Your task to perform on an android device: toggle improve location accuracy Image 0: 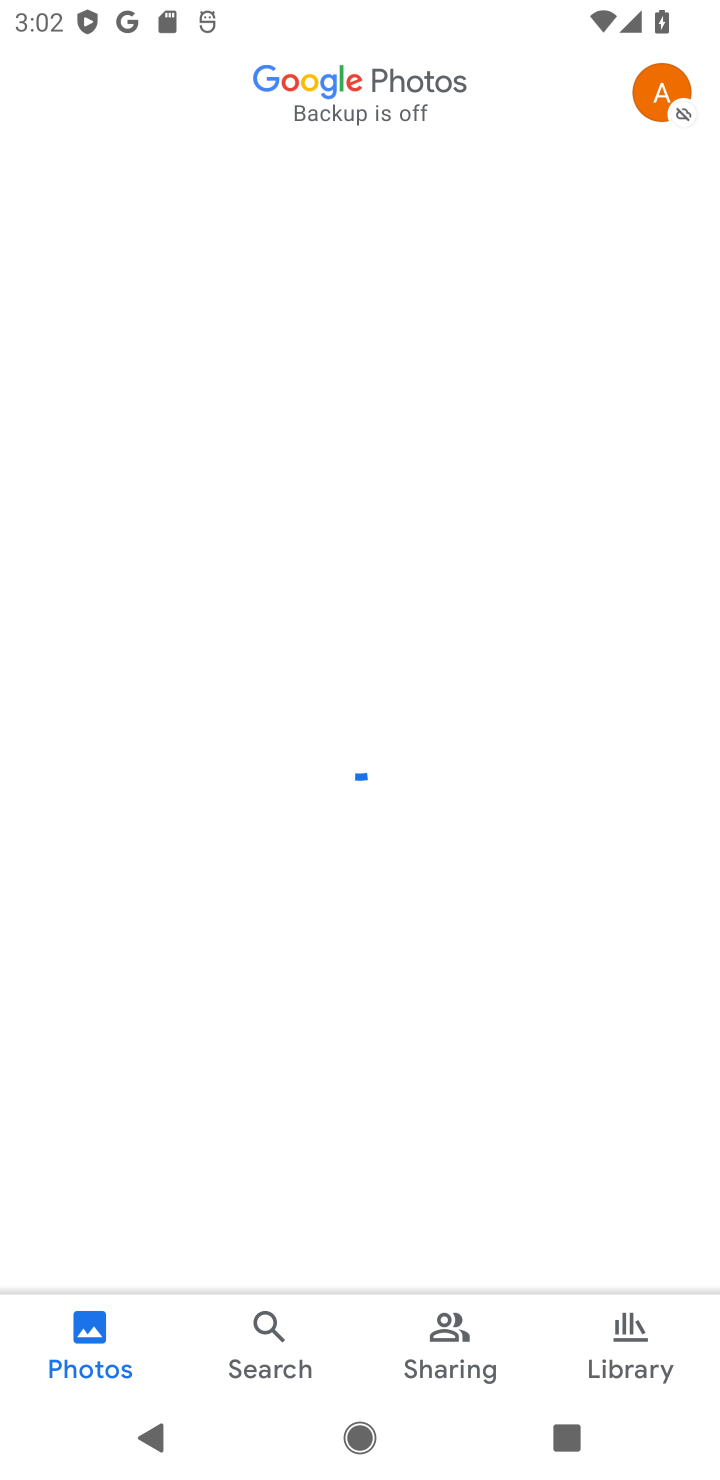
Step 0: press home button
Your task to perform on an android device: toggle improve location accuracy Image 1: 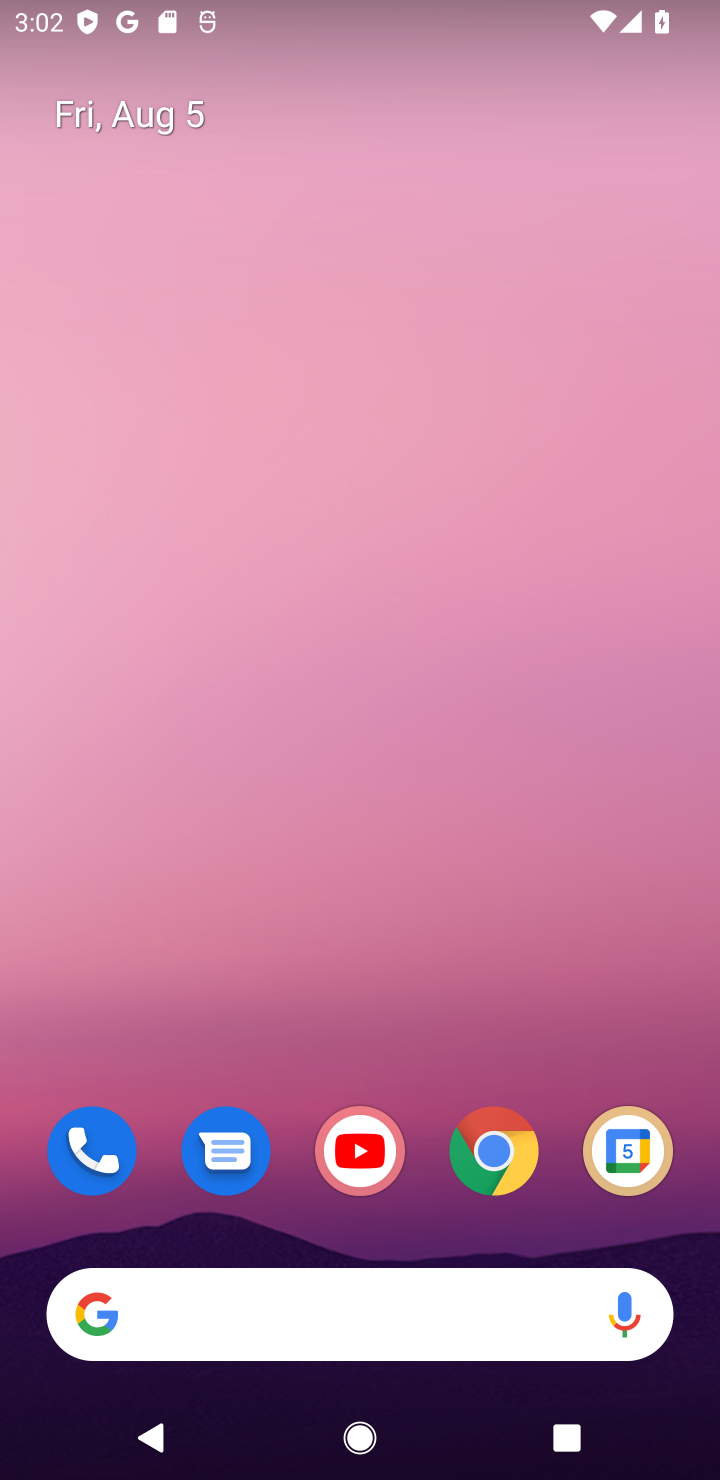
Step 1: drag from (424, 1072) to (350, 273)
Your task to perform on an android device: toggle improve location accuracy Image 2: 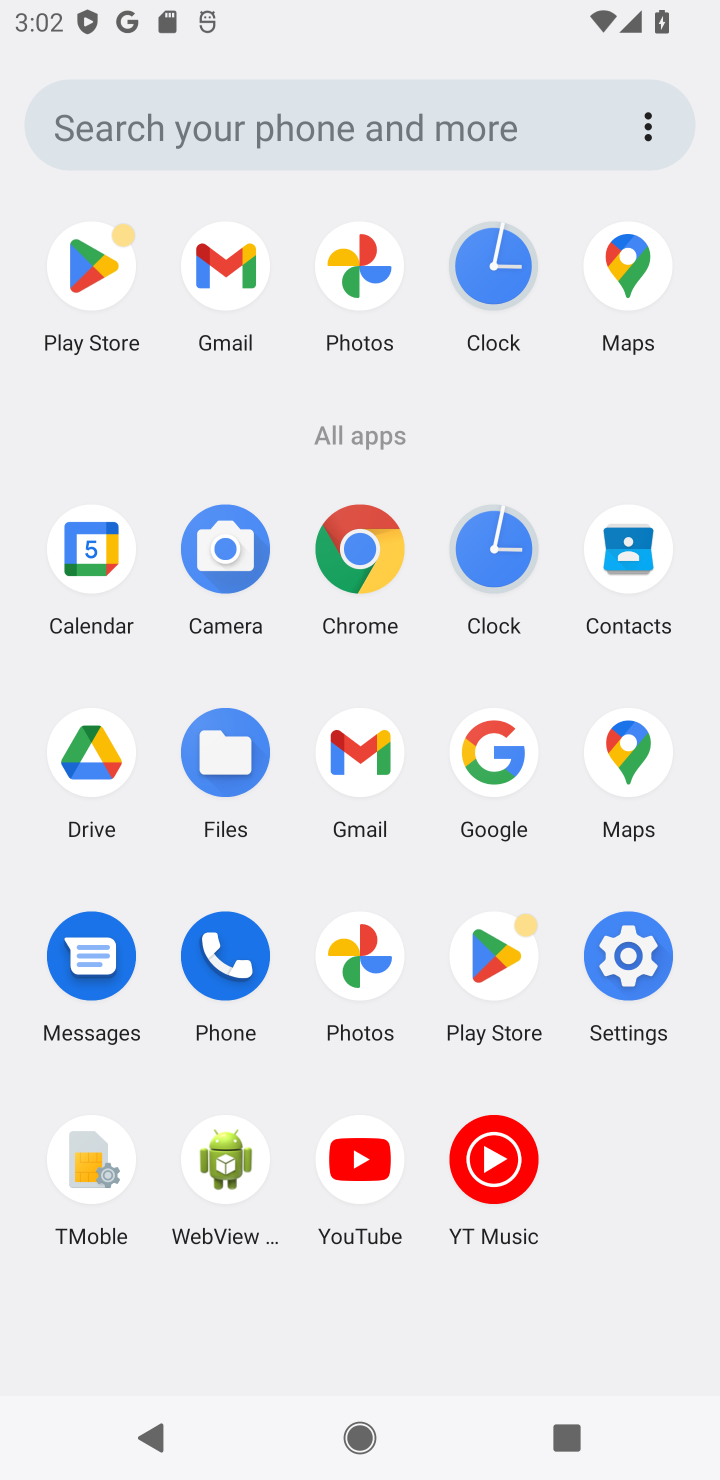
Step 2: click (638, 971)
Your task to perform on an android device: toggle improve location accuracy Image 3: 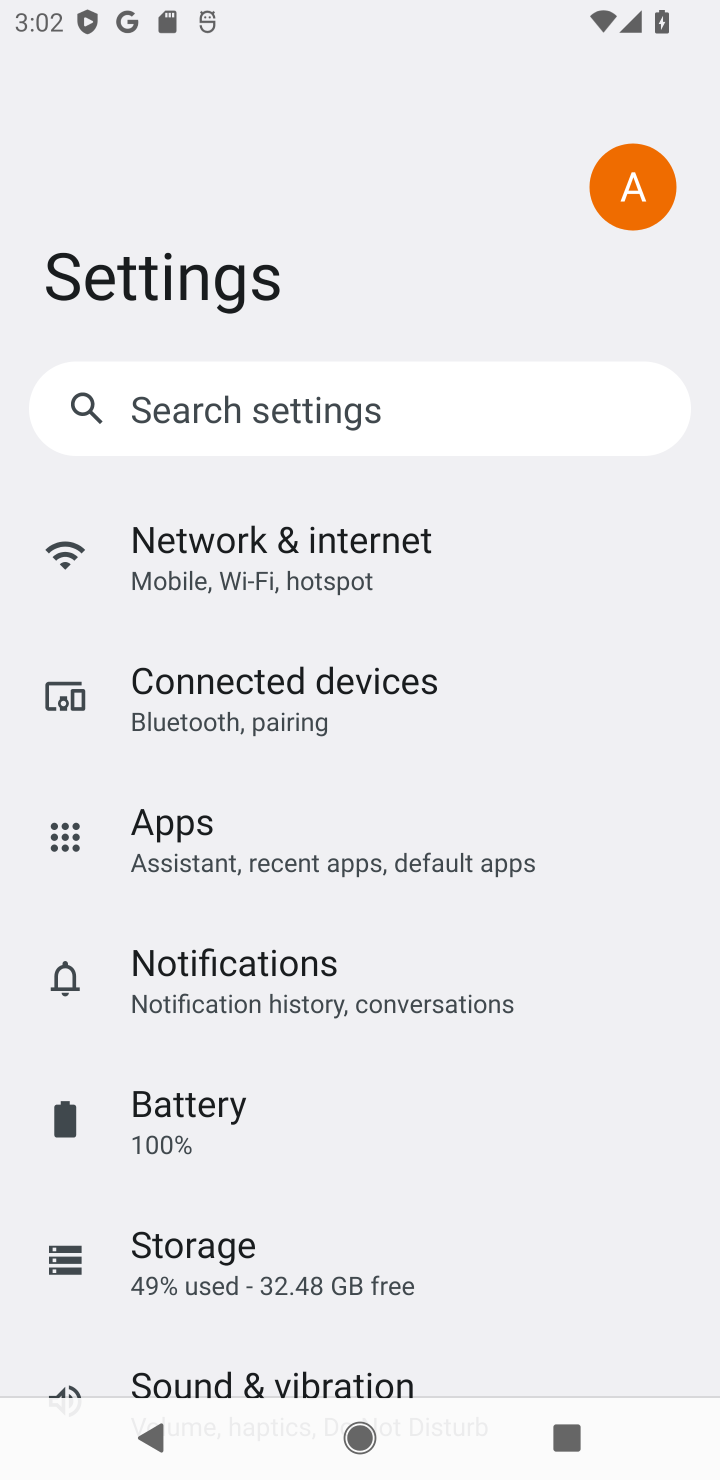
Step 3: drag from (344, 1215) to (241, 313)
Your task to perform on an android device: toggle improve location accuracy Image 4: 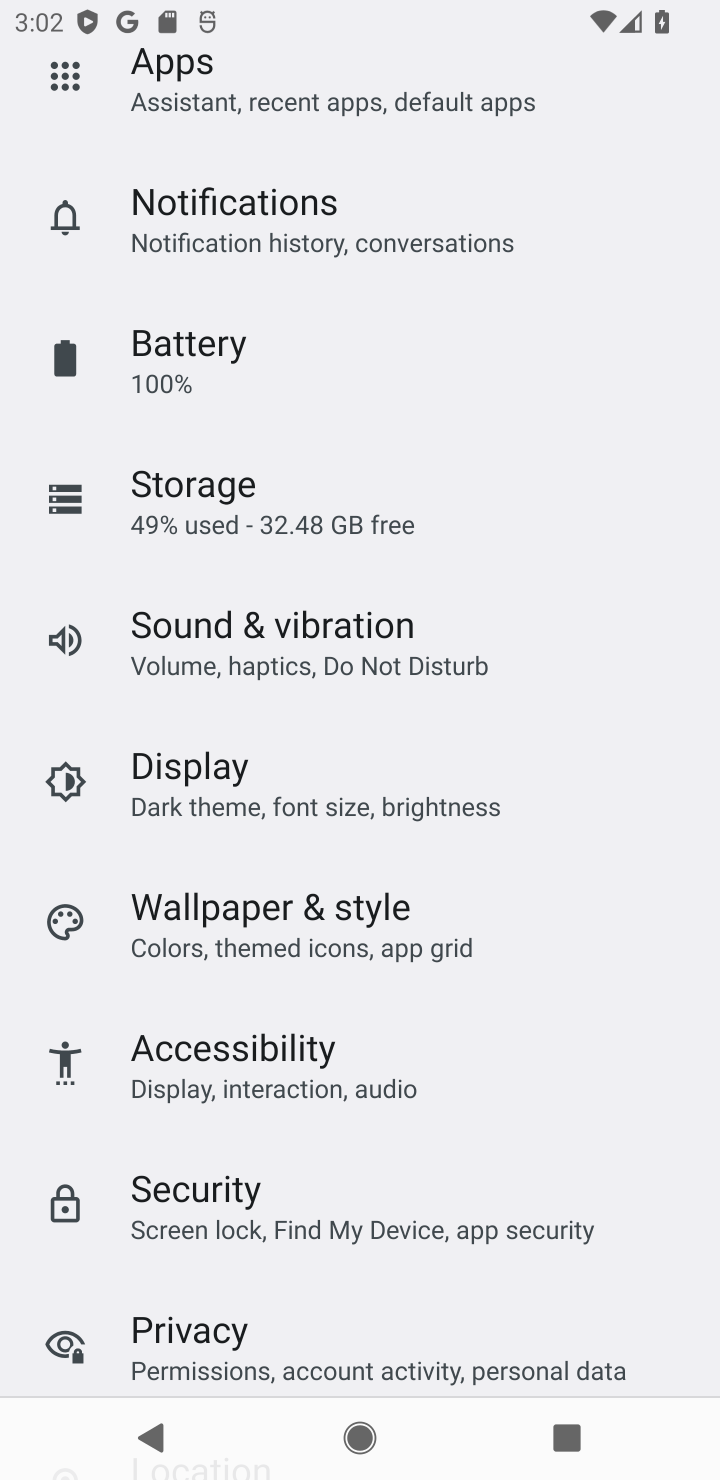
Step 4: drag from (269, 1183) to (209, 374)
Your task to perform on an android device: toggle improve location accuracy Image 5: 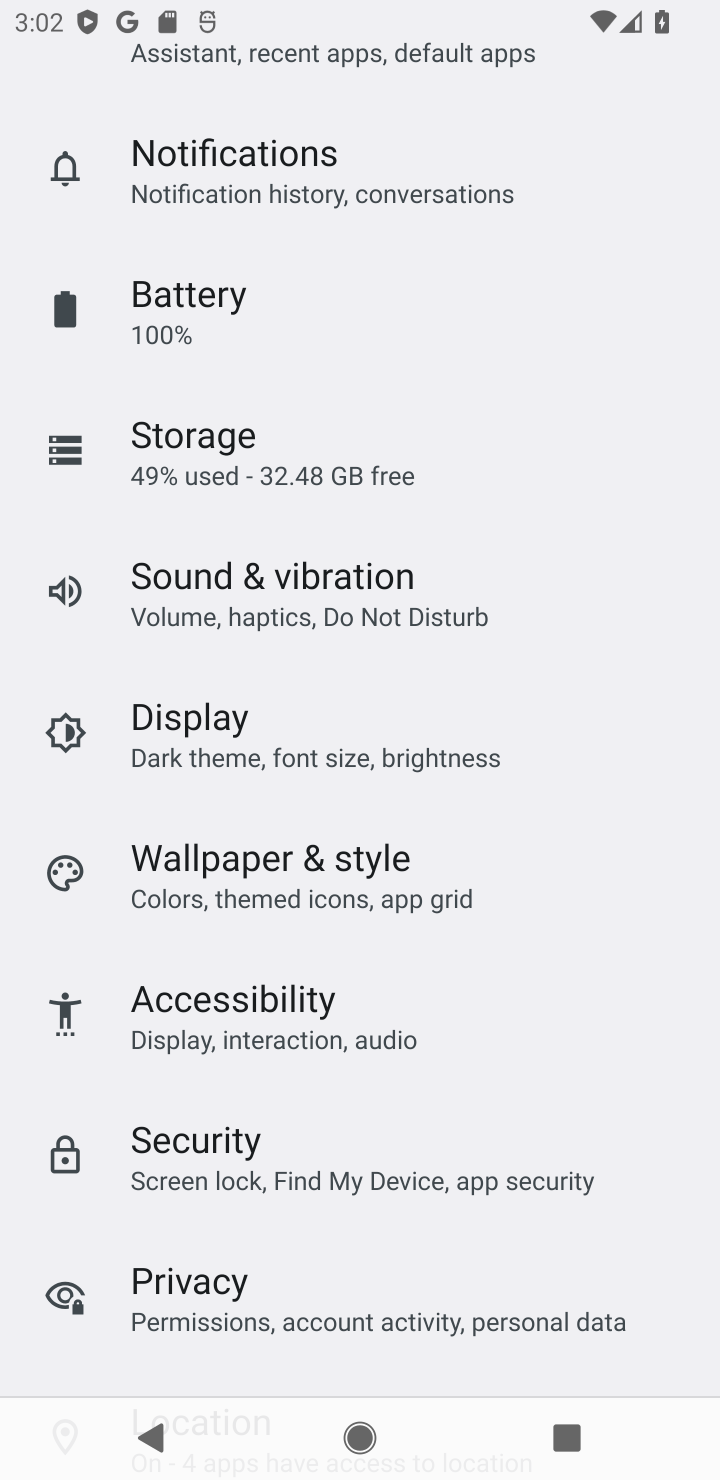
Step 5: drag from (331, 1223) to (305, 646)
Your task to perform on an android device: toggle improve location accuracy Image 6: 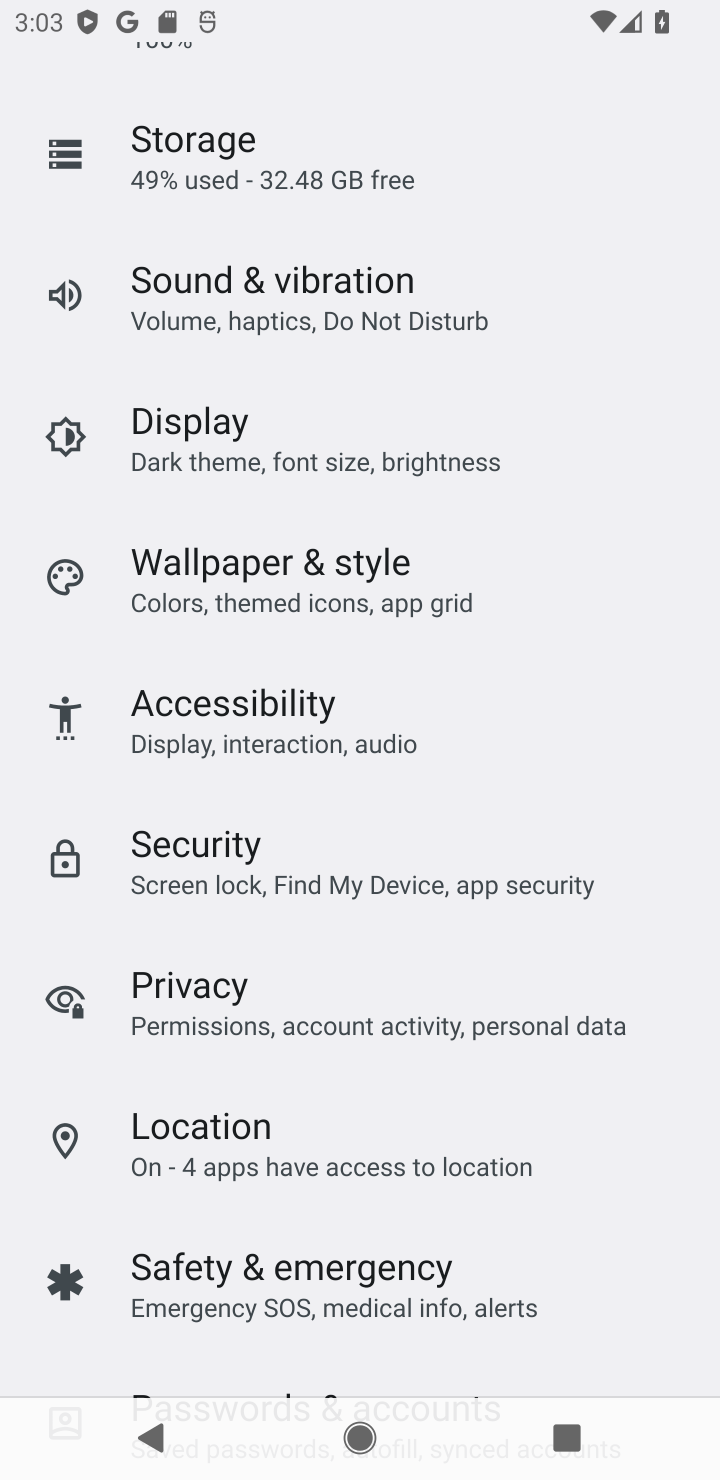
Step 6: click (296, 1156)
Your task to perform on an android device: toggle improve location accuracy Image 7: 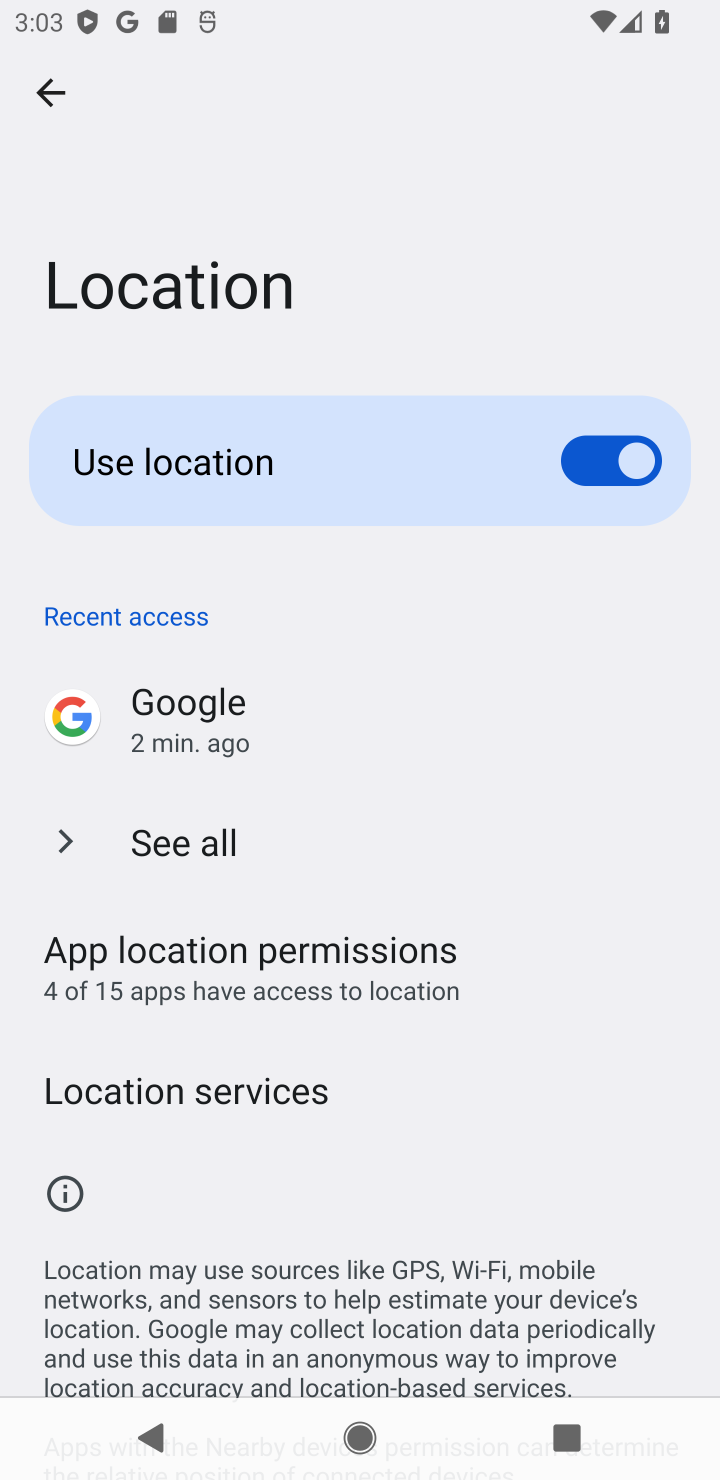
Step 7: click (245, 1100)
Your task to perform on an android device: toggle improve location accuracy Image 8: 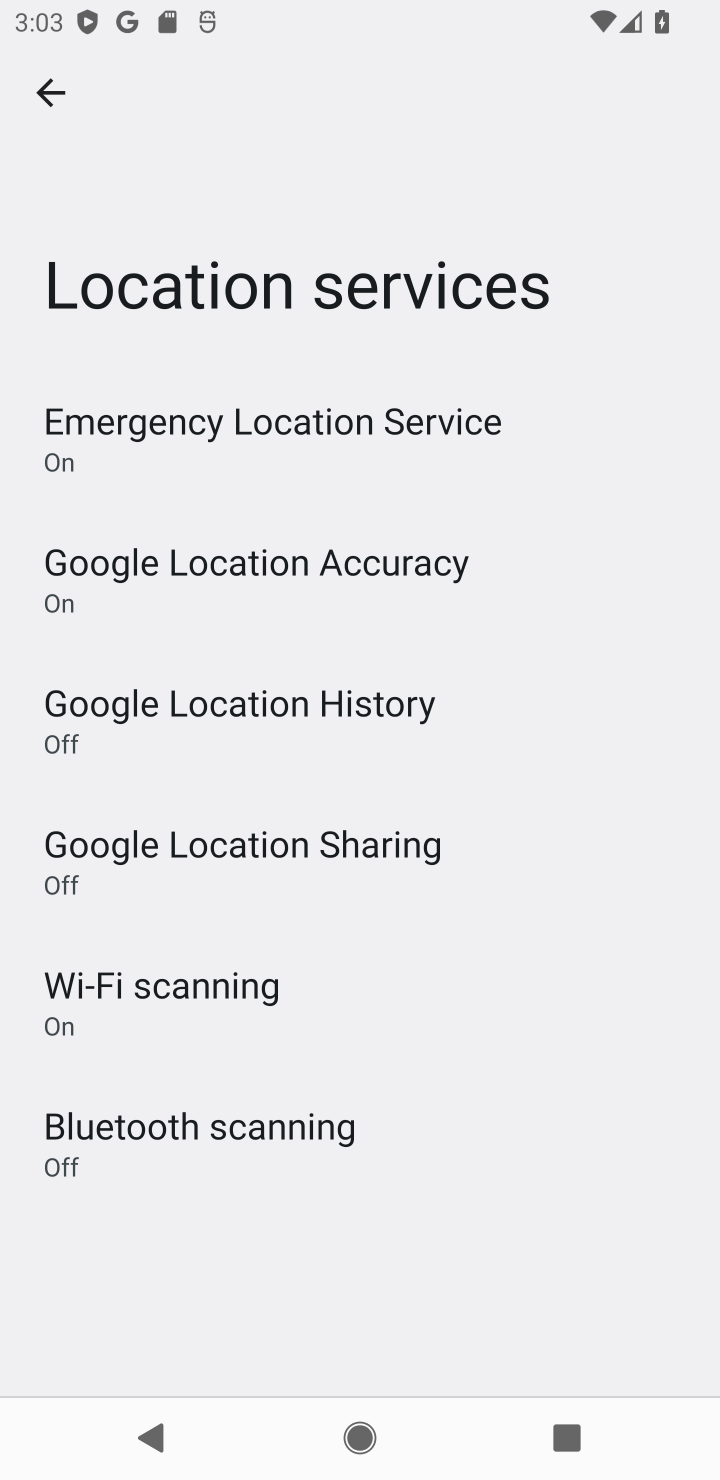
Step 8: click (391, 577)
Your task to perform on an android device: toggle improve location accuracy Image 9: 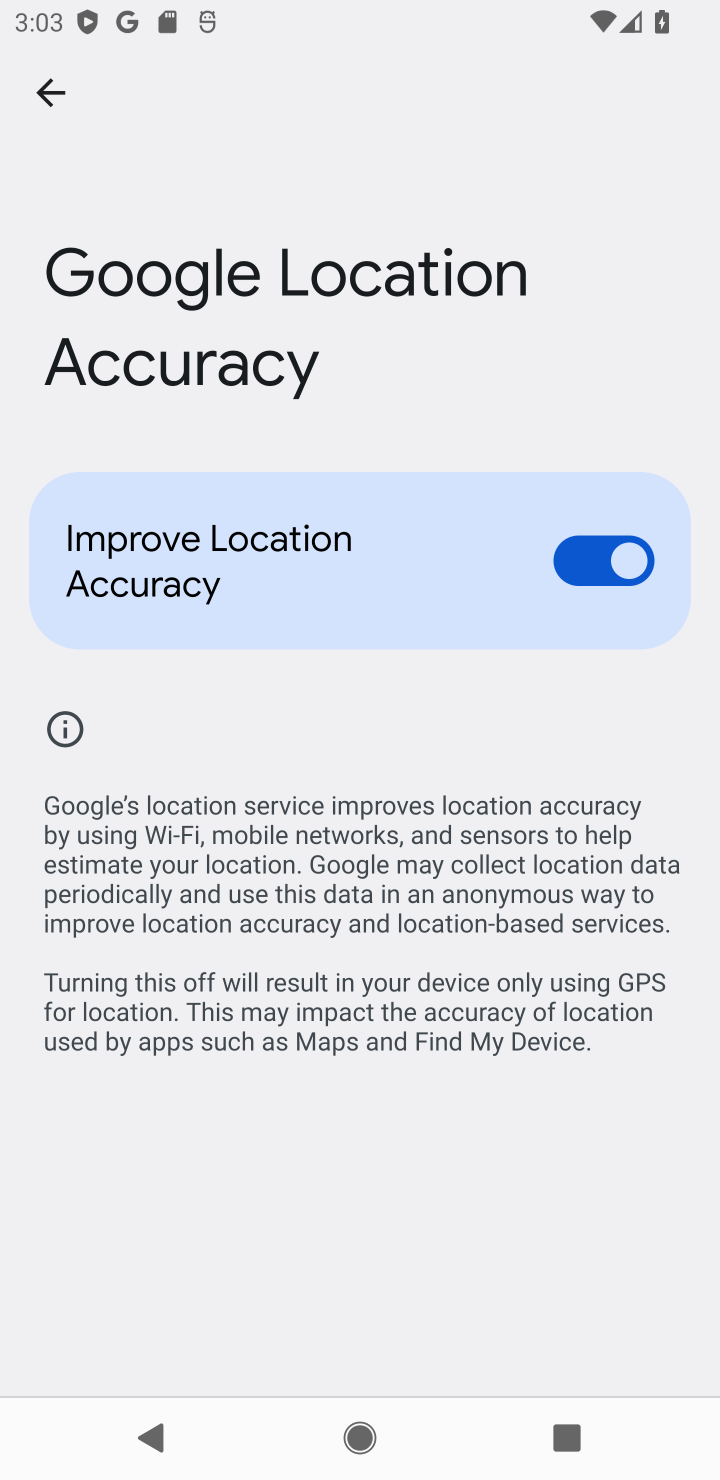
Step 9: click (590, 545)
Your task to perform on an android device: toggle improve location accuracy Image 10: 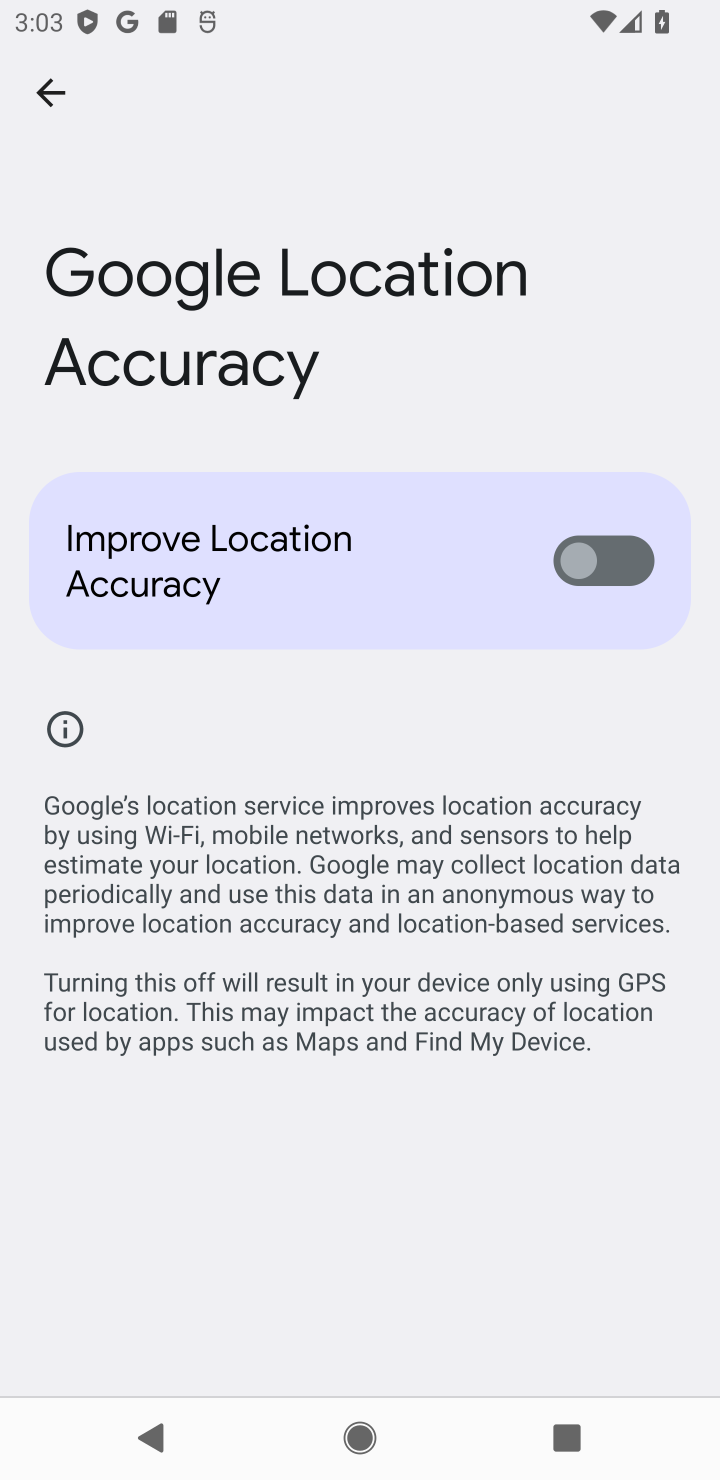
Step 10: task complete